Your task to perform on an android device: Open Amazon Image 0: 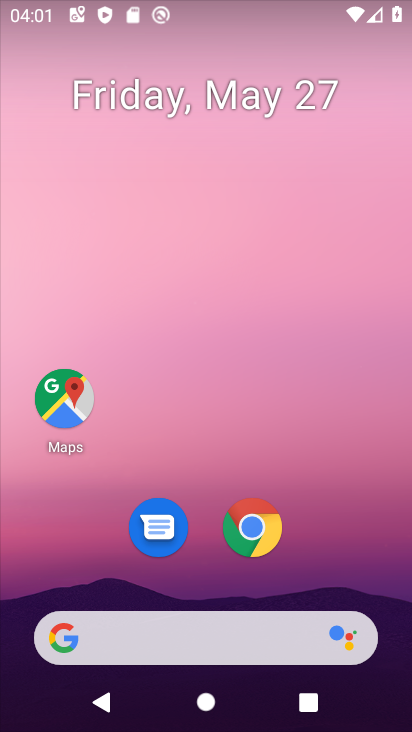
Step 0: press home button
Your task to perform on an android device: Open Amazon Image 1: 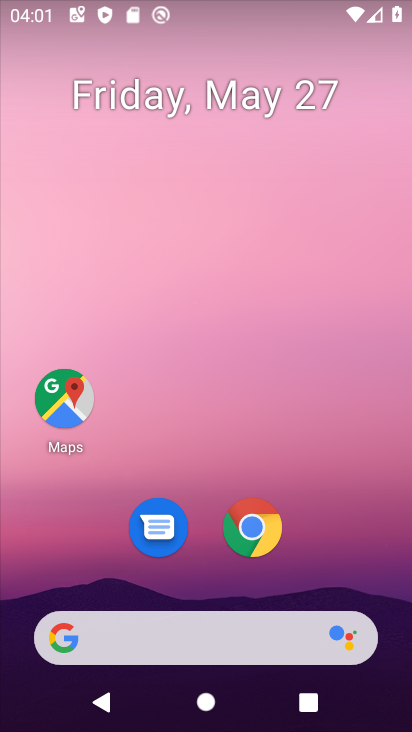
Step 1: click (238, 530)
Your task to perform on an android device: Open Amazon Image 2: 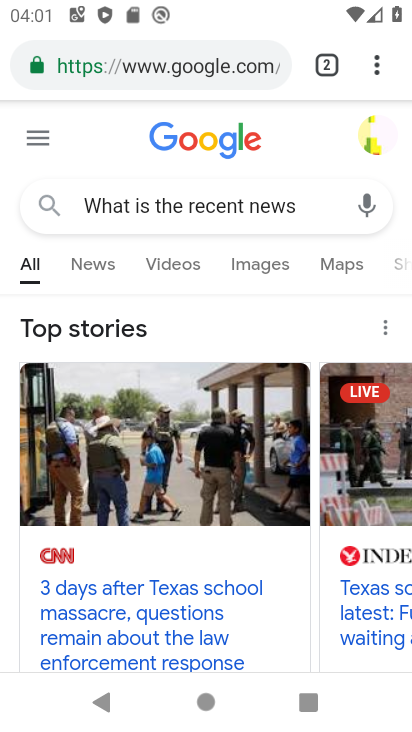
Step 2: drag from (373, 48) to (149, 119)
Your task to perform on an android device: Open Amazon Image 3: 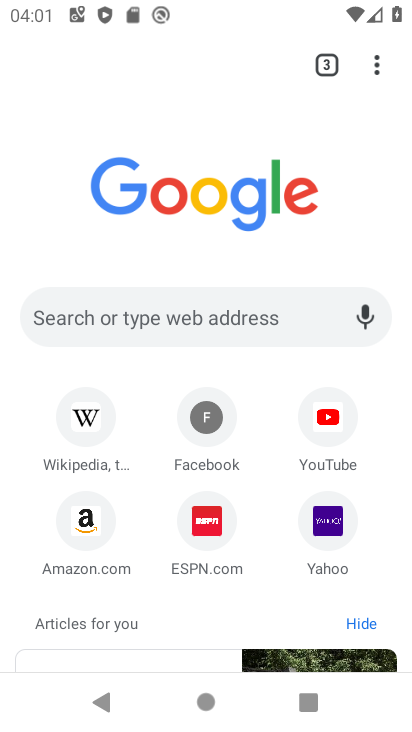
Step 3: click (98, 542)
Your task to perform on an android device: Open Amazon Image 4: 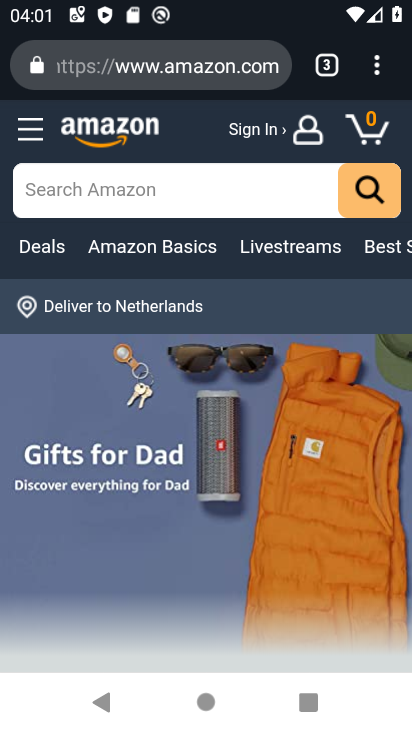
Step 4: task complete